Your task to perform on an android device: open chrome privacy settings Image 0: 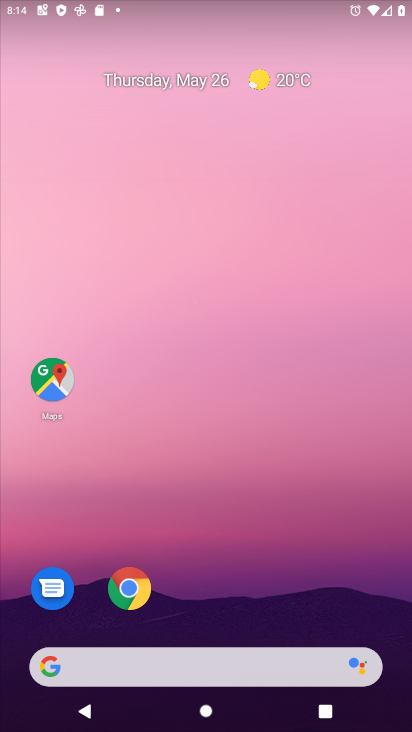
Step 0: drag from (362, 594) to (279, 26)
Your task to perform on an android device: open chrome privacy settings Image 1: 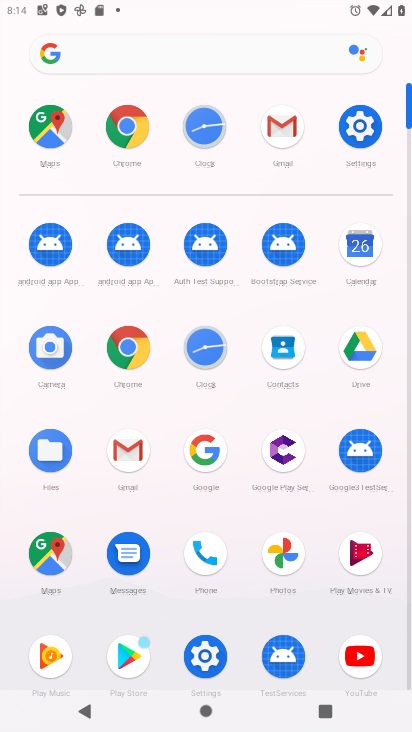
Step 1: click (206, 639)
Your task to perform on an android device: open chrome privacy settings Image 2: 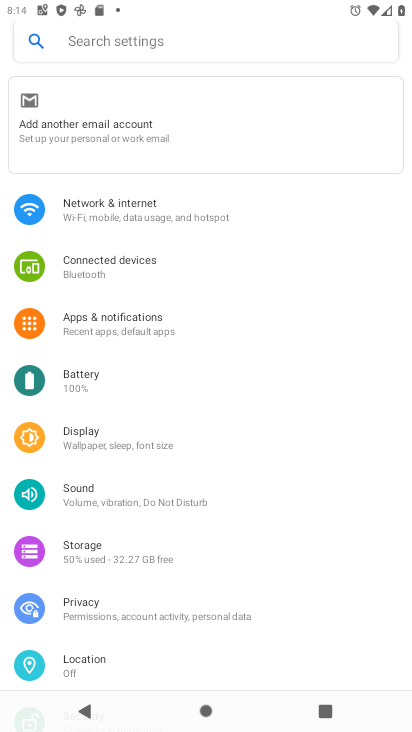
Step 2: click (118, 606)
Your task to perform on an android device: open chrome privacy settings Image 3: 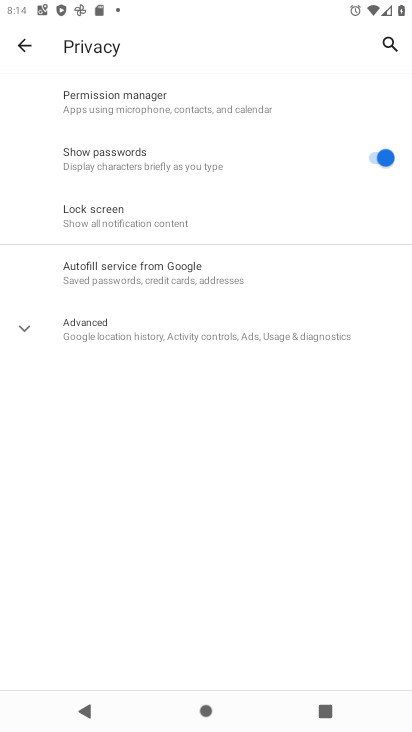
Step 3: task complete